Your task to perform on an android device: search for starred emails in the gmail app Image 0: 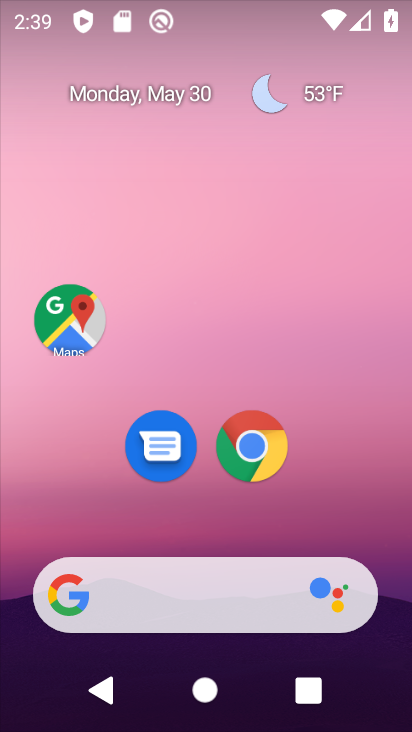
Step 0: drag from (75, 528) to (176, 124)
Your task to perform on an android device: search for starred emails in the gmail app Image 1: 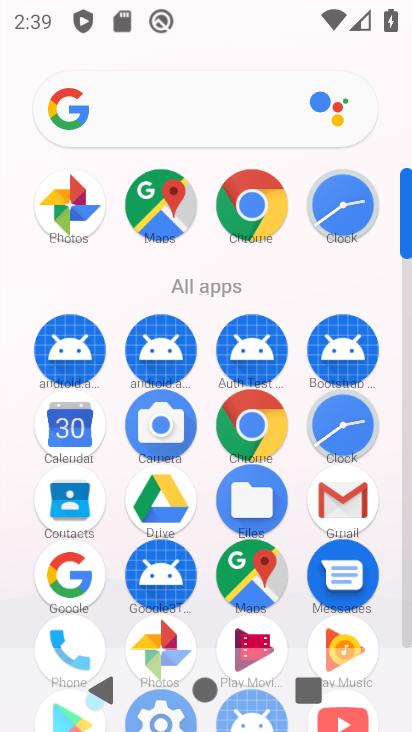
Step 1: click (354, 513)
Your task to perform on an android device: search for starred emails in the gmail app Image 2: 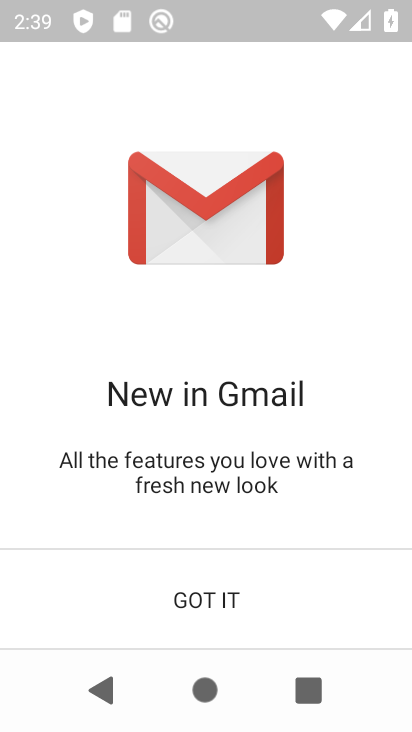
Step 2: click (228, 632)
Your task to perform on an android device: search for starred emails in the gmail app Image 3: 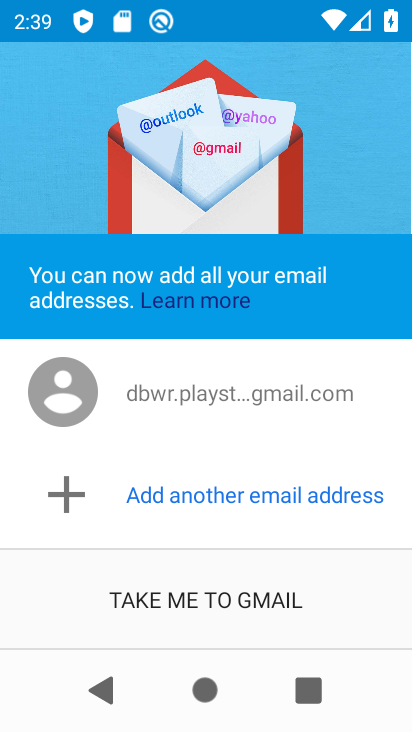
Step 3: click (247, 602)
Your task to perform on an android device: search for starred emails in the gmail app Image 4: 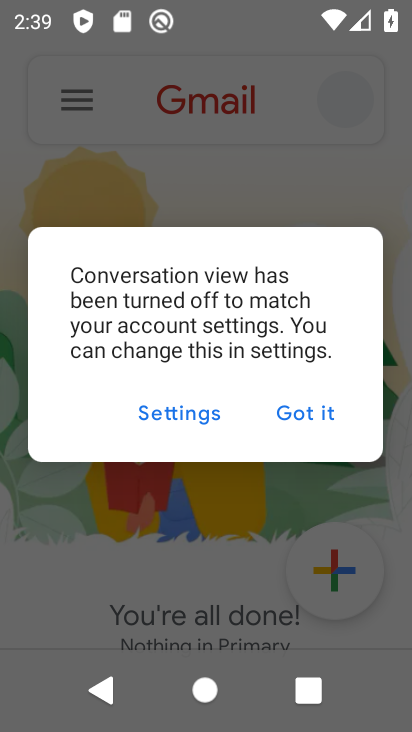
Step 4: click (335, 406)
Your task to perform on an android device: search for starred emails in the gmail app Image 5: 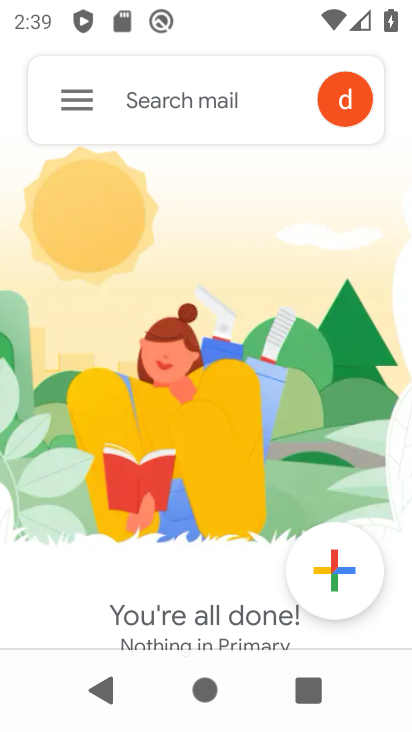
Step 5: click (64, 94)
Your task to perform on an android device: search for starred emails in the gmail app Image 6: 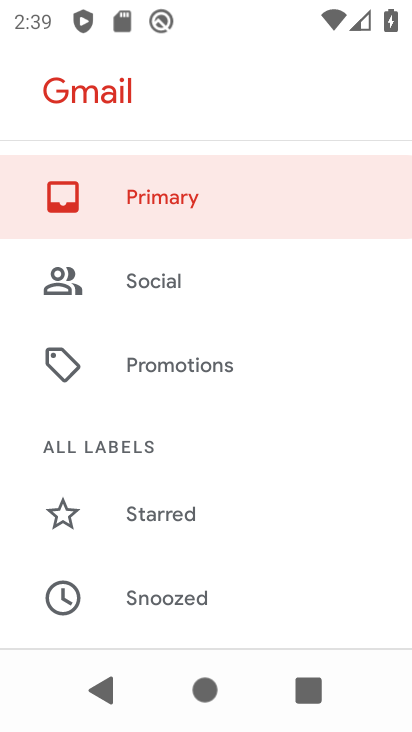
Step 6: drag from (203, 563) to (272, 305)
Your task to perform on an android device: search for starred emails in the gmail app Image 7: 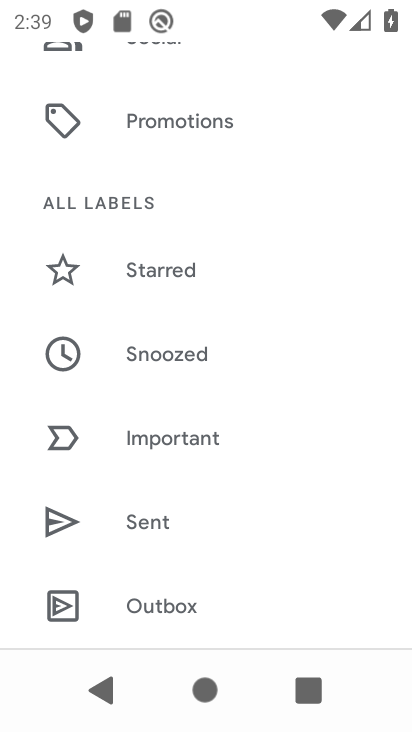
Step 7: click (240, 281)
Your task to perform on an android device: search for starred emails in the gmail app Image 8: 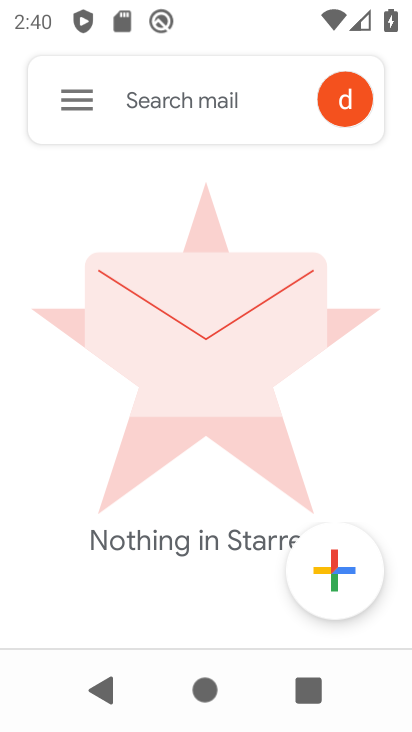
Step 8: task complete